Your task to perform on an android device: turn on the 24-hour format for clock Image 0: 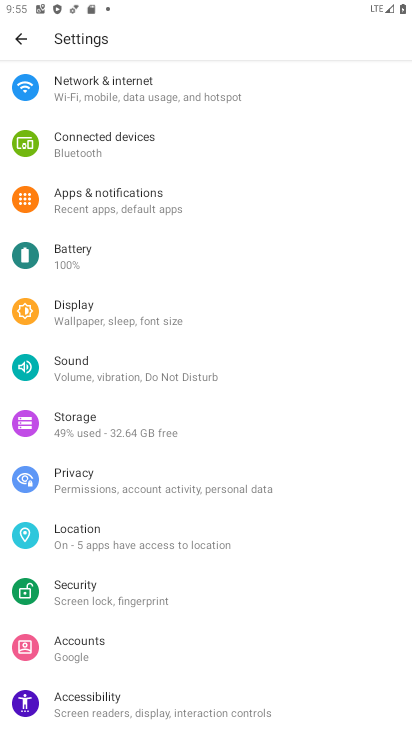
Step 0: press home button
Your task to perform on an android device: turn on the 24-hour format for clock Image 1: 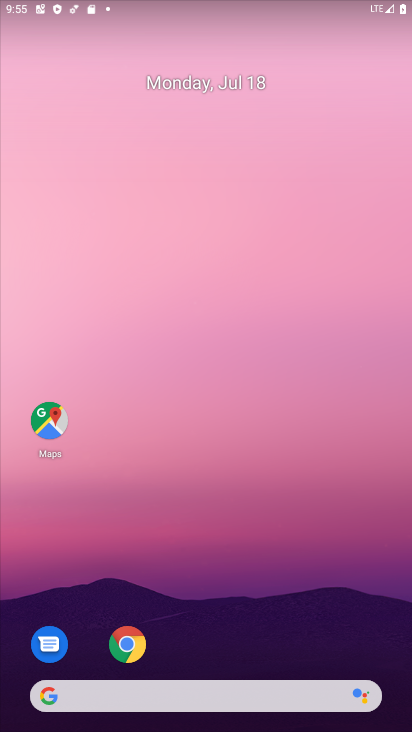
Step 1: drag from (333, 621) to (380, 183)
Your task to perform on an android device: turn on the 24-hour format for clock Image 2: 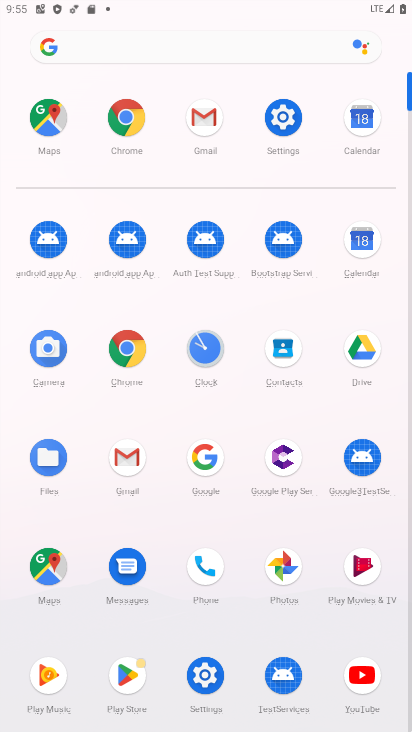
Step 2: click (205, 348)
Your task to perform on an android device: turn on the 24-hour format for clock Image 3: 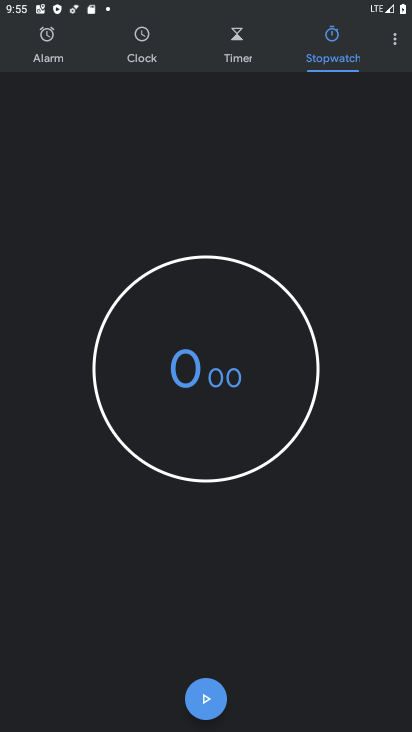
Step 3: click (393, 45)
Your task to perform on an android device: turn on the 24-hour format for clock Image 4: 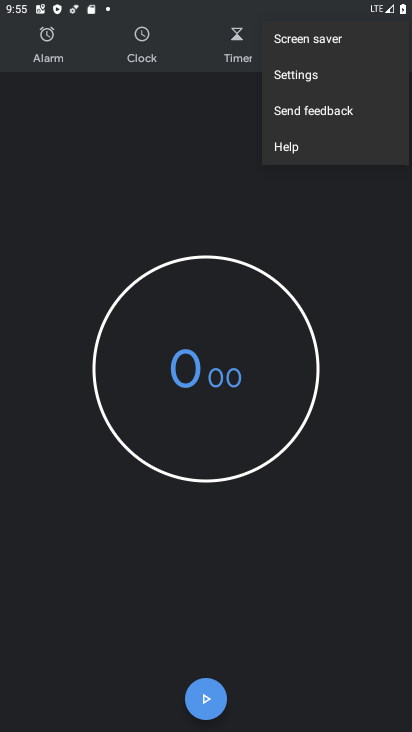
Step 4: click (313, 84)
Your task to perform on an android device: turn on the 24-hour format for clock Image 5: 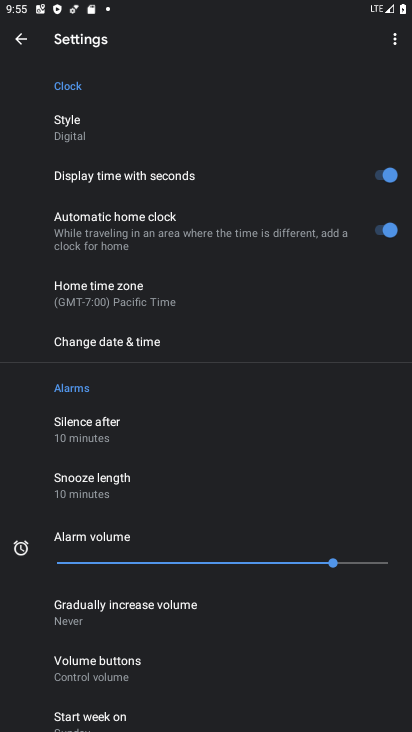
Step 5: drag from (305, 367) to (309, 269)
Your task to perform on an android device: turn on the 24-hour format for clock Image 6: 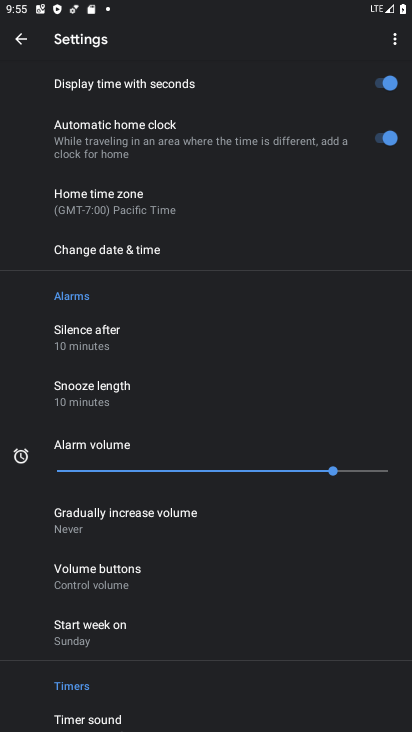
Step 6: drag from (292, 507) to (295, 376)
Your task to perform on an android device: turn on the 24-hour format for clock Image 7: 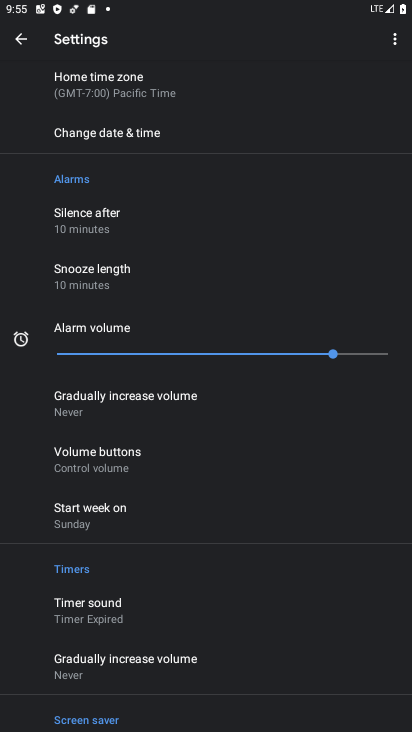
Step 7: drag from (306, 515) to (302, 386)
Your task to perform on an android device: turn on the 24-hour format for clock Image 8: 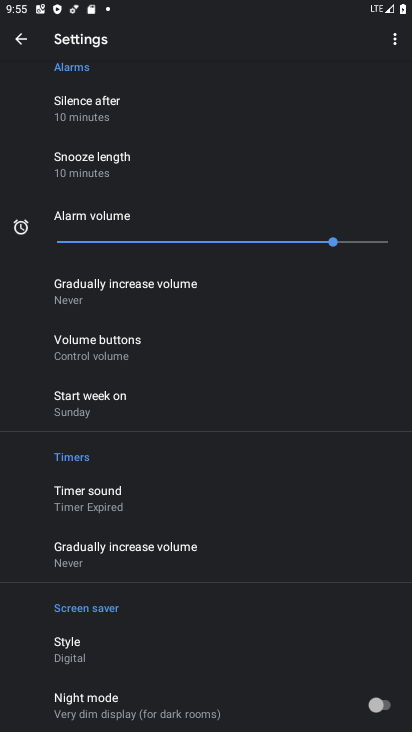
Step 8: drag from (322, 322) to (329, 446)
Your task to perform on an android device: turn on the 24-hour format for clock Image 9: 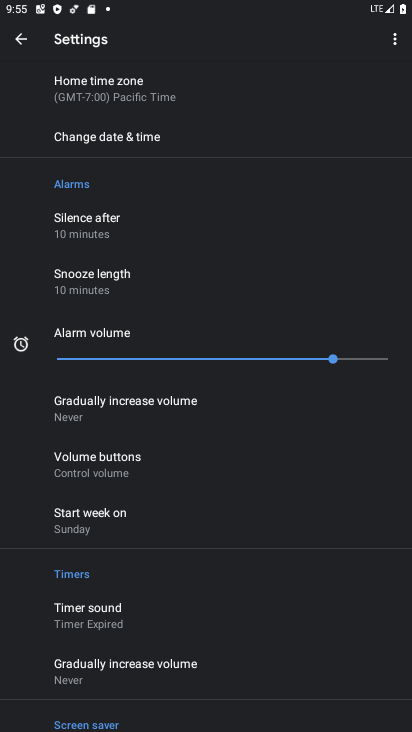
Step 9: drag from (311, 254) to (310, 437)
Your task to perform on an android device: turn on the 24-hour format for clock Image 10: 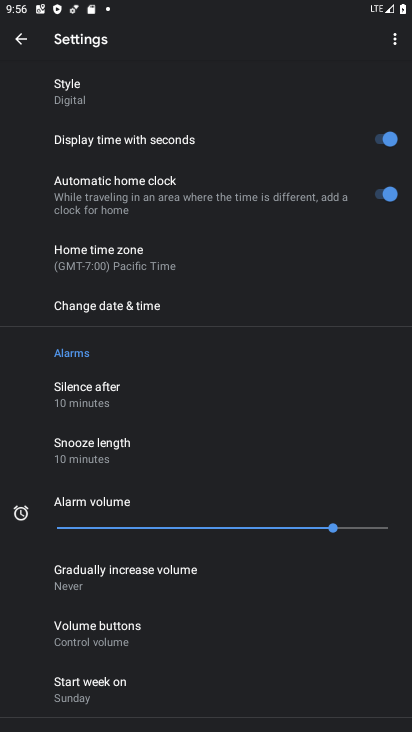
Step 10: drag from (294, 271) to (305, 419)
Your task to perform on an android device: turn on the 24-hour format for clock Image 11: 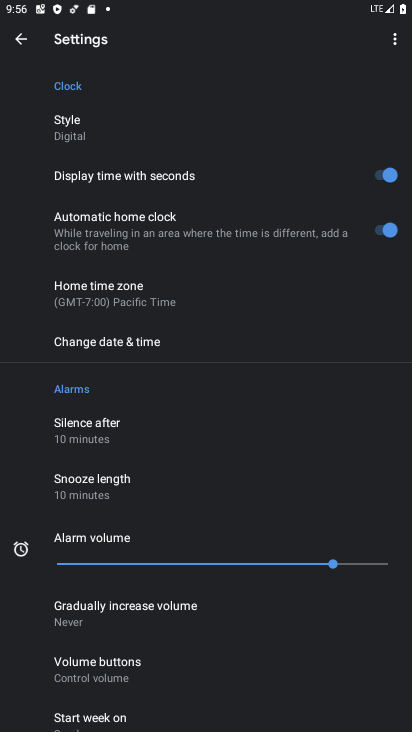
Step 11: click (236, 339)
Your task to perform on an android device: turn on the 24-hour format for clock Image 12: 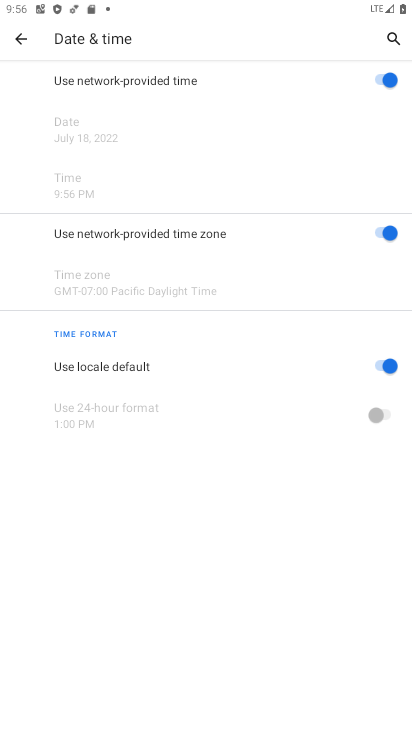
Step 12: task complete